Your task to perform on an android device: open app "Adobe Express: Graphic Design" (install if not already installed), go to login, and select forgot password Image 0: 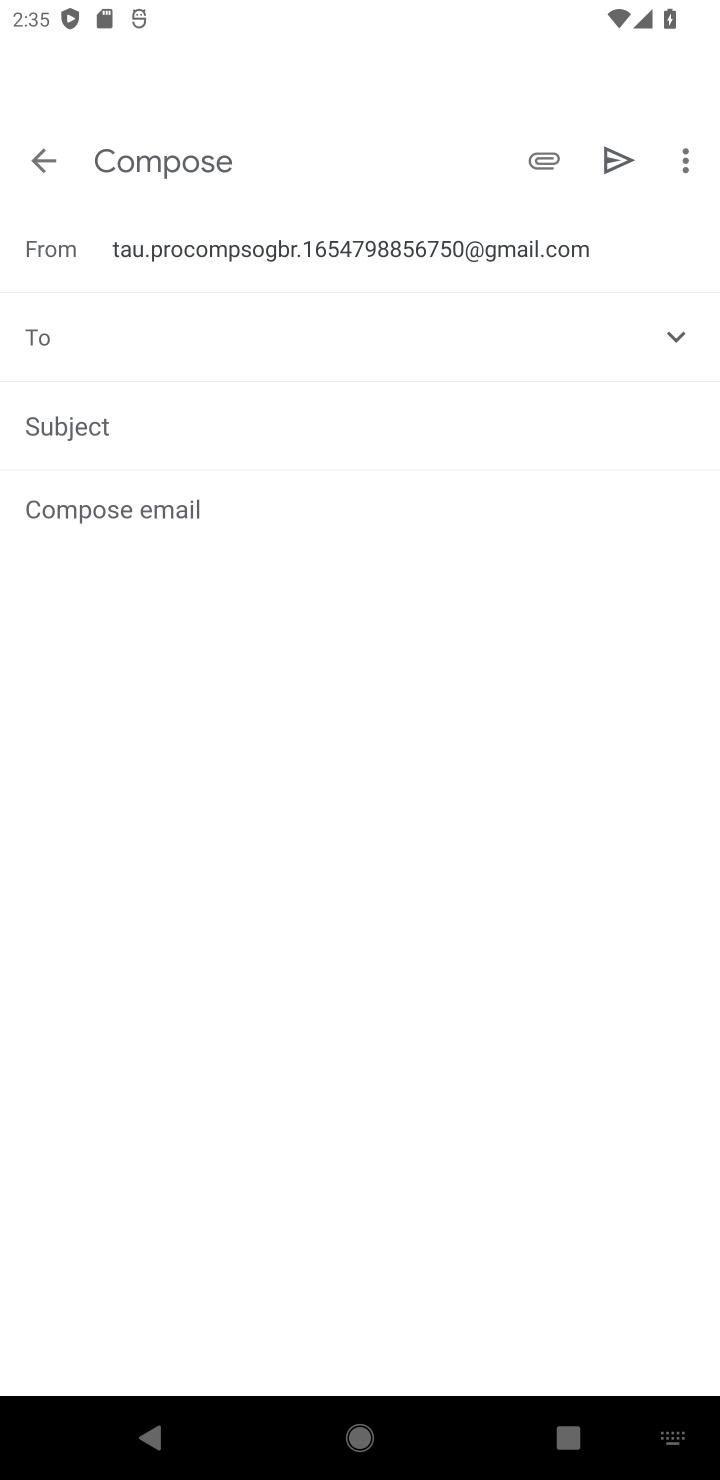
Step 0: press home button
Your task to perform on an android device: open app "Adobe Express: Graphic Design" (install if not already installed), go to login, and select forgot password Image 1: 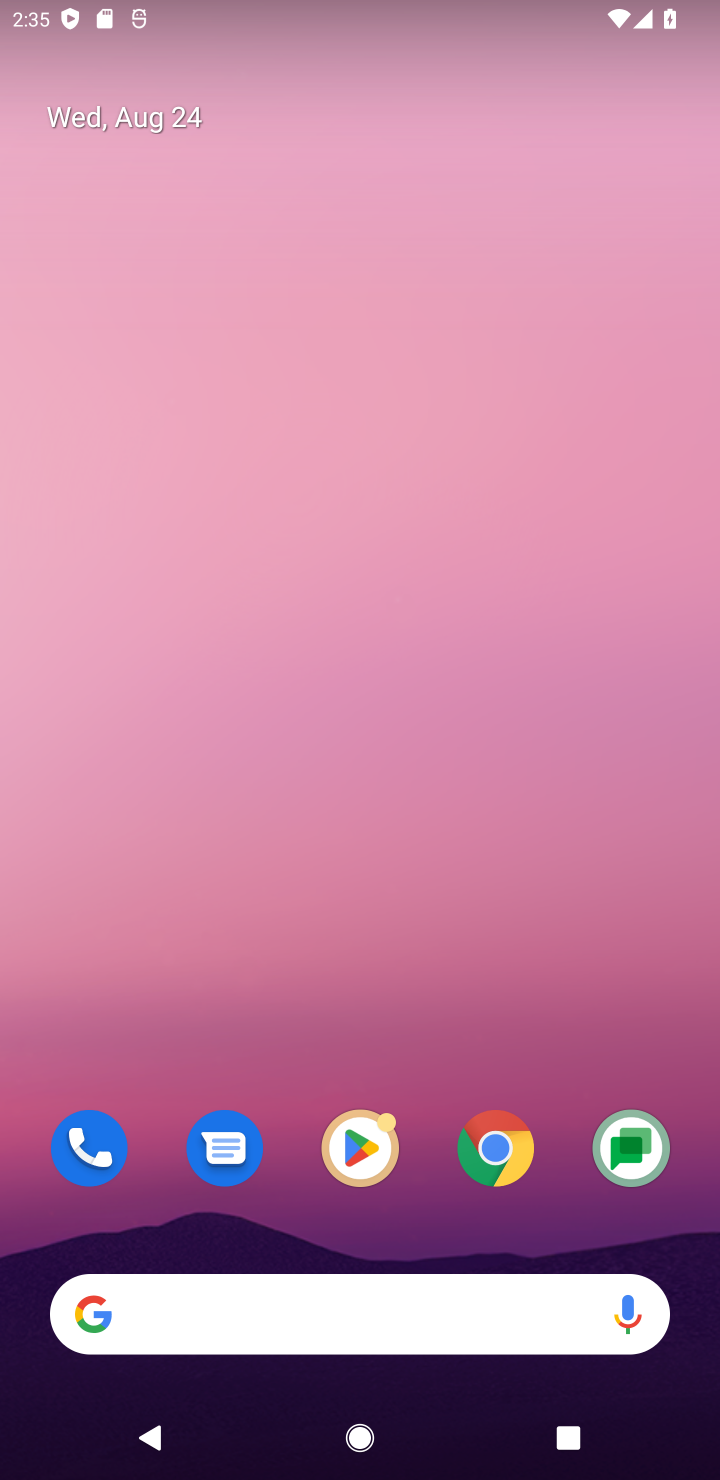
Step 1: drag from (293, 1249) to (353, 283)
Your task to perform on an android device: open app "Adobe Express: Graphic Design" (install if not already installed), go to login, and select forgot password Image 2: 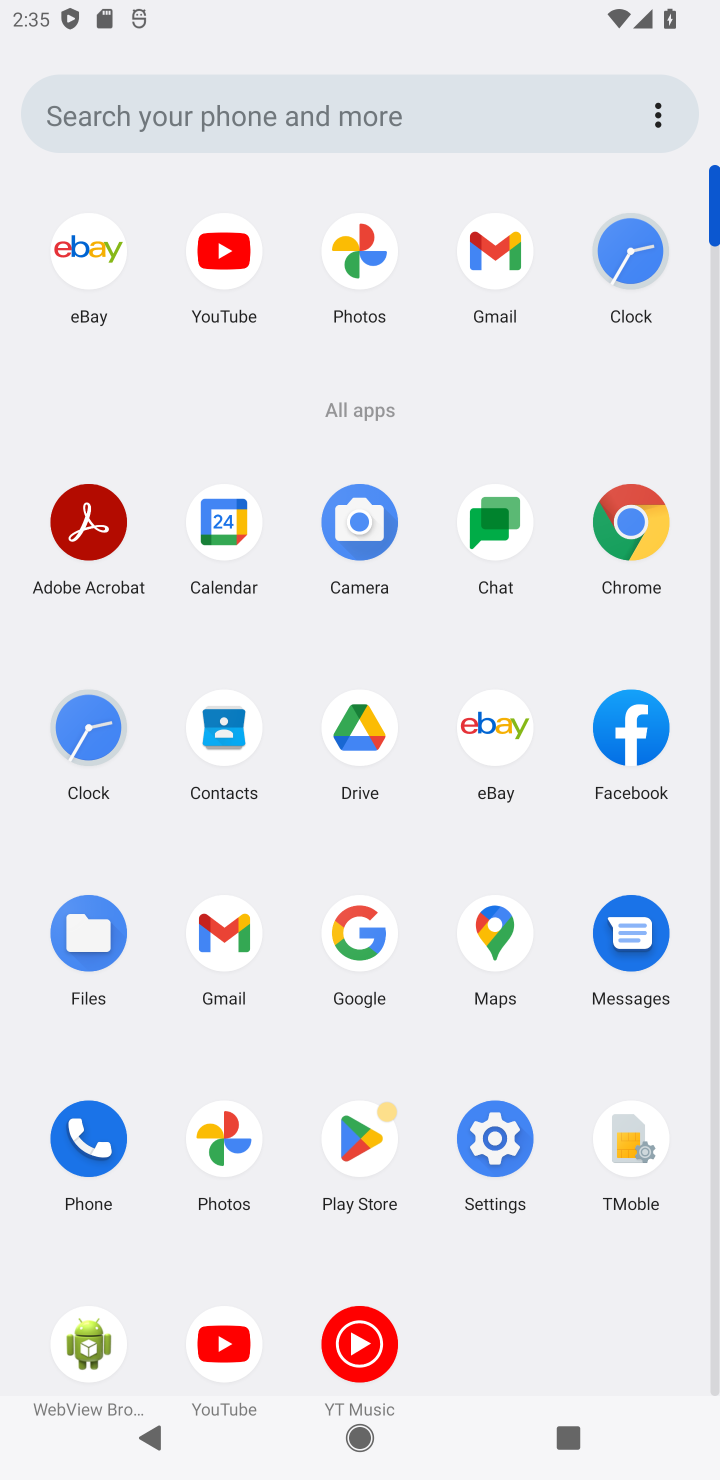
Step 2: click (364, 1141)
Your task to perform on an android device: open app "Adobe Express: Graphic Design" (install if not already installed), go to login, and select forgot password Image 3: 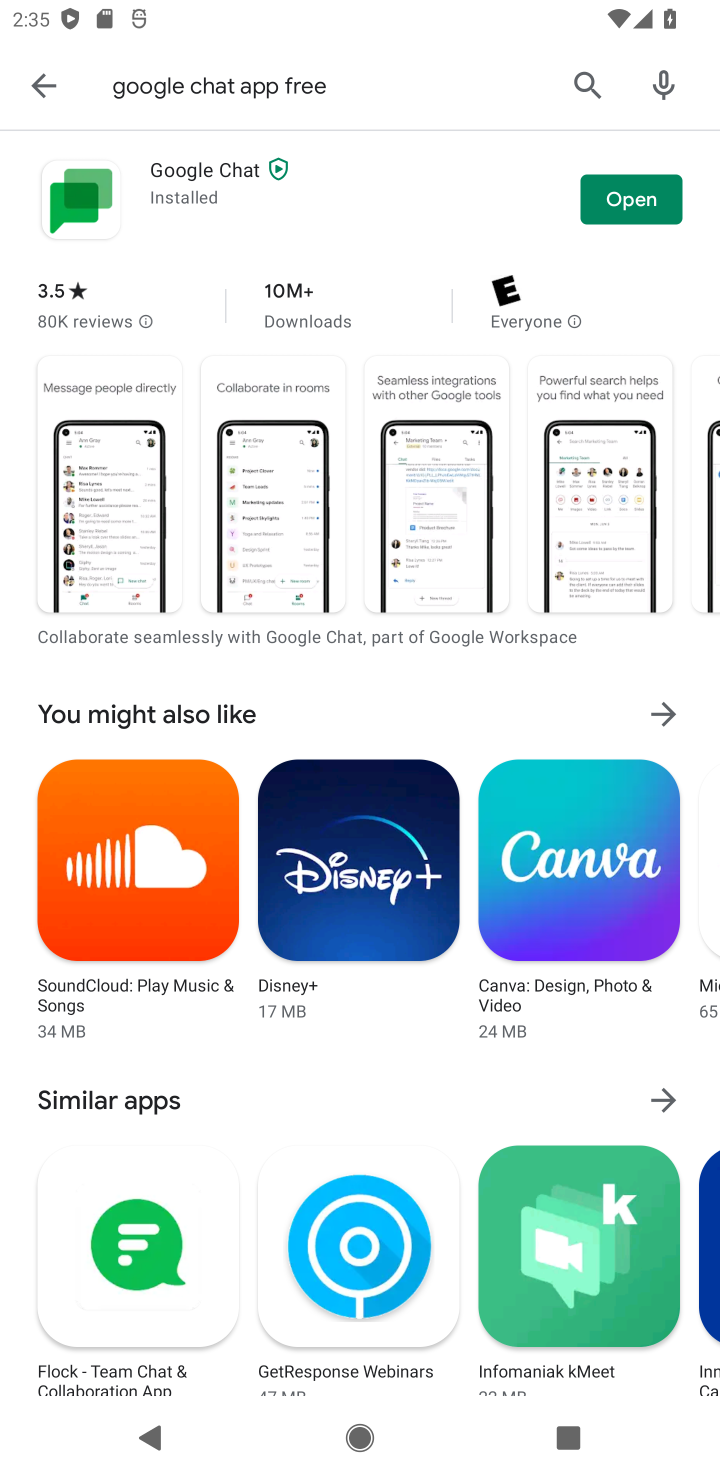
Step 3: click (352, 1118)
Your task to perform on an android device: open app "Adobe Express: Graphic Design" (install if not already installed), go to login, and select forgot password Image 4: 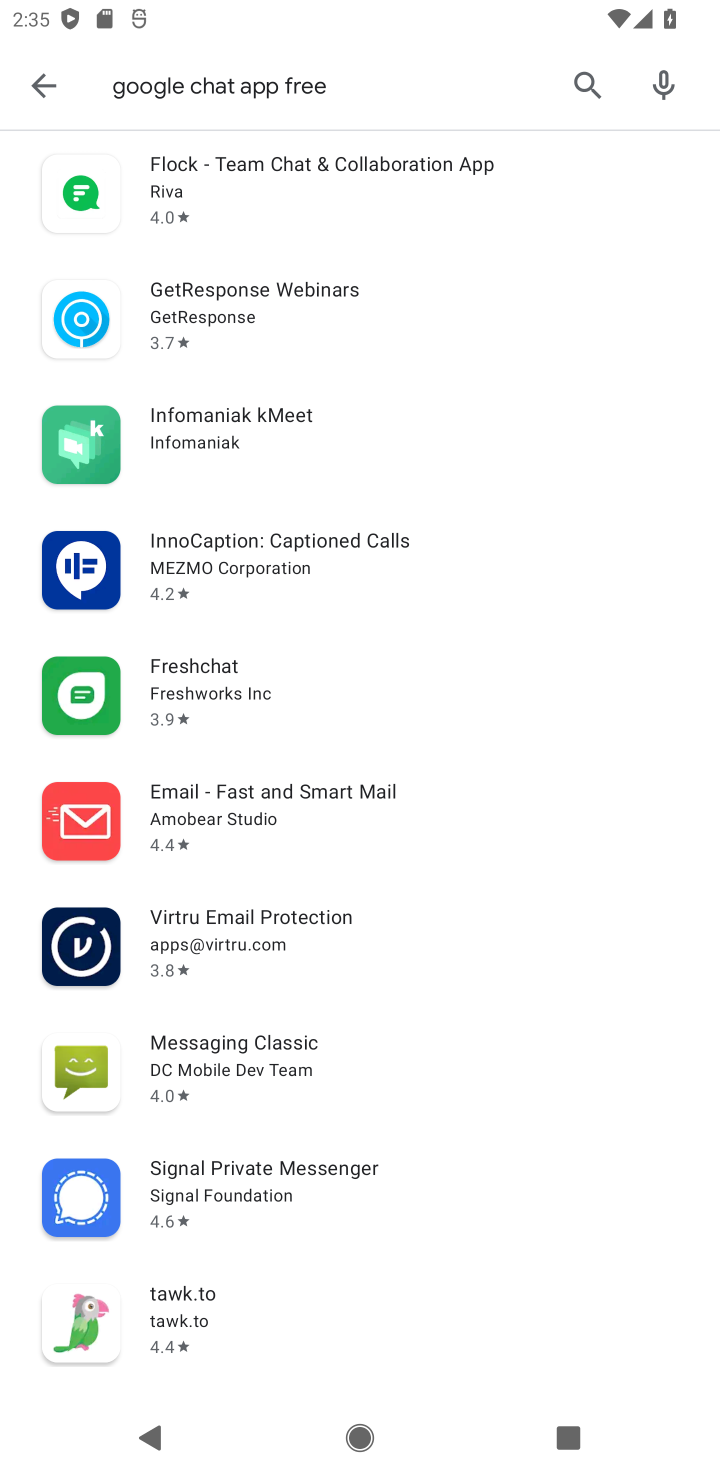
Step 4: click (64, 76)
Your task to perform on an android device: open app "Adobe Express: Graphic Design" (install if not already installed), go to login, and select forgot password Image 5: 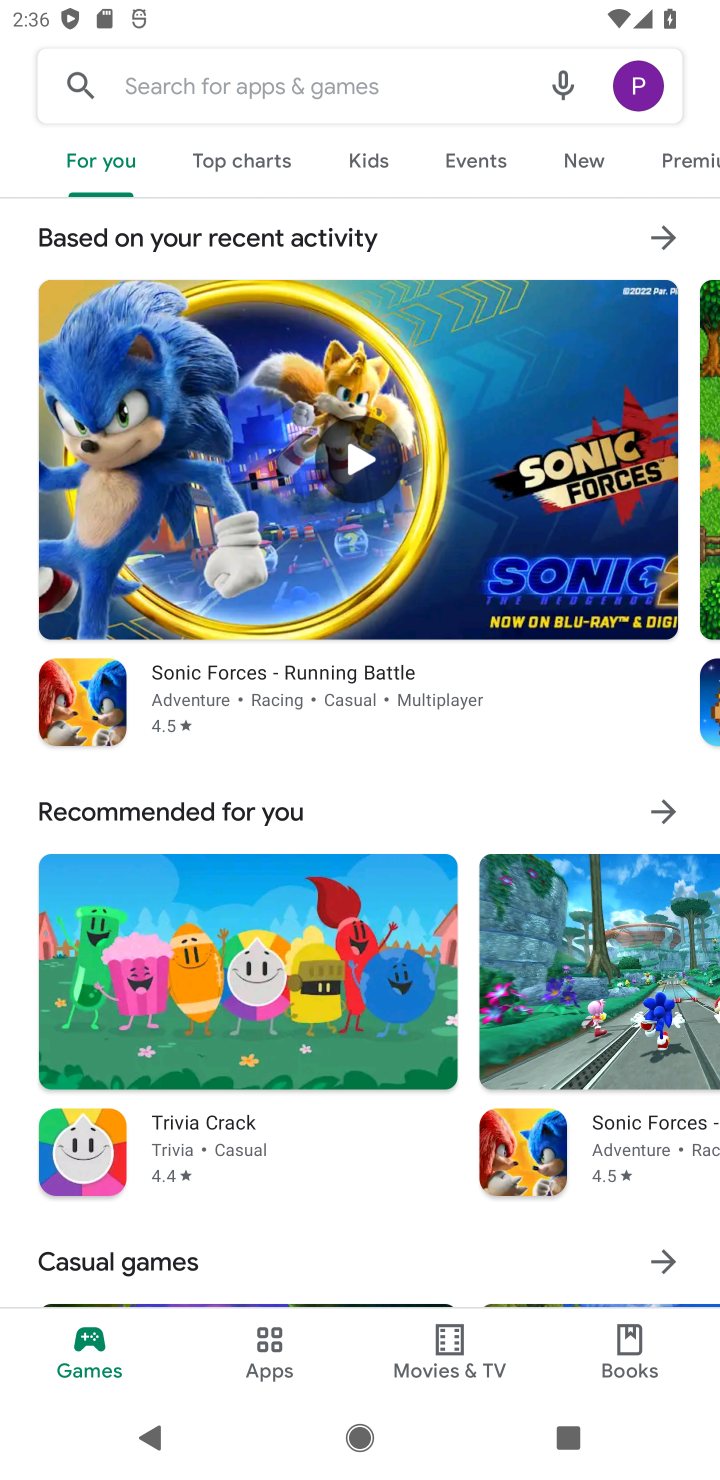
Step 5: click (384, 72)
Your task to perform on an android device: open app "Adobe Express: Graphic Design" (install if not already installed), go to login, and select forgot password Image 6: 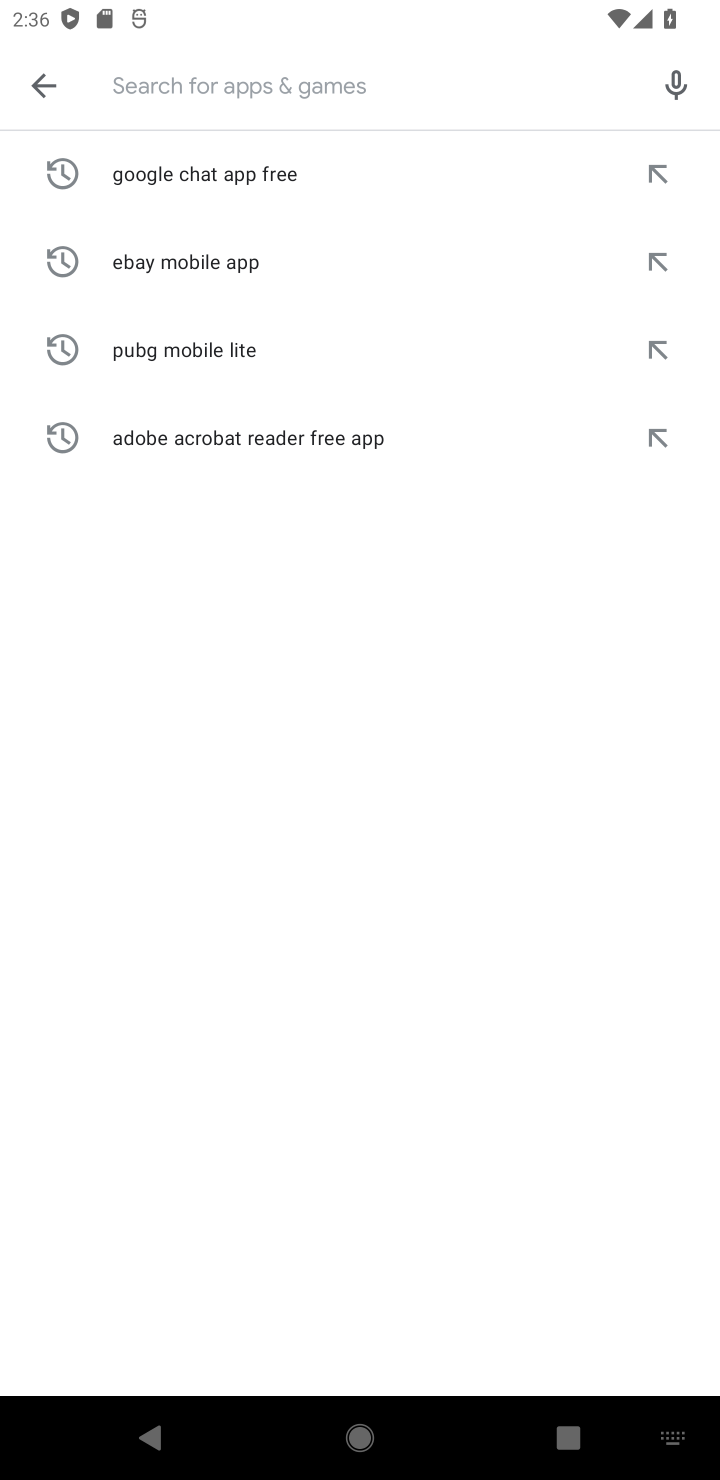
Step 6: type "Adobe Express: Graphic Design "
Your task to perform on an android device: open app "Adobe Express: Graphic Design" (install if not already installed), go to login, and select forgot password Image 7: 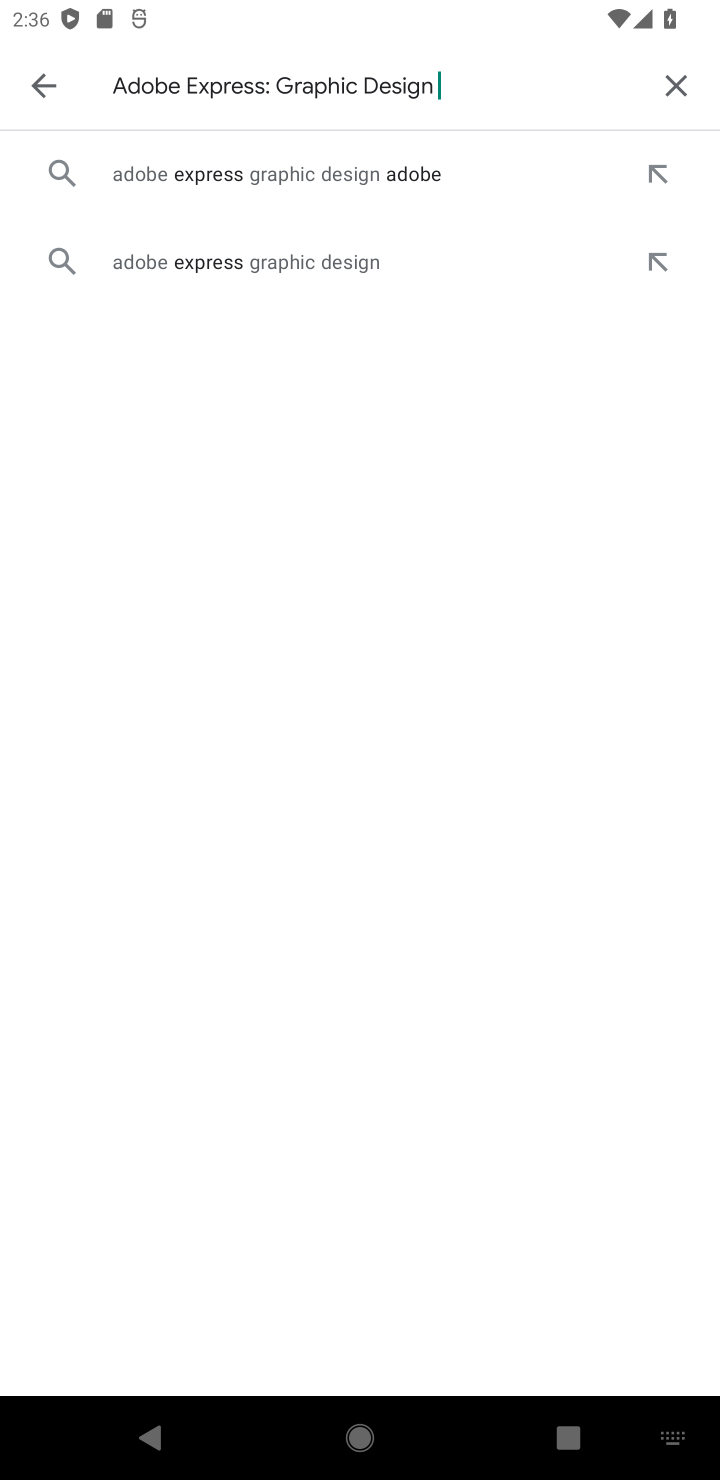
Step 7: click (242, 184)
Your task to perform on an android device: open app "Adobe Express: Graphic Design" (install if not already installed), go to login, and select forgot password Image 8: 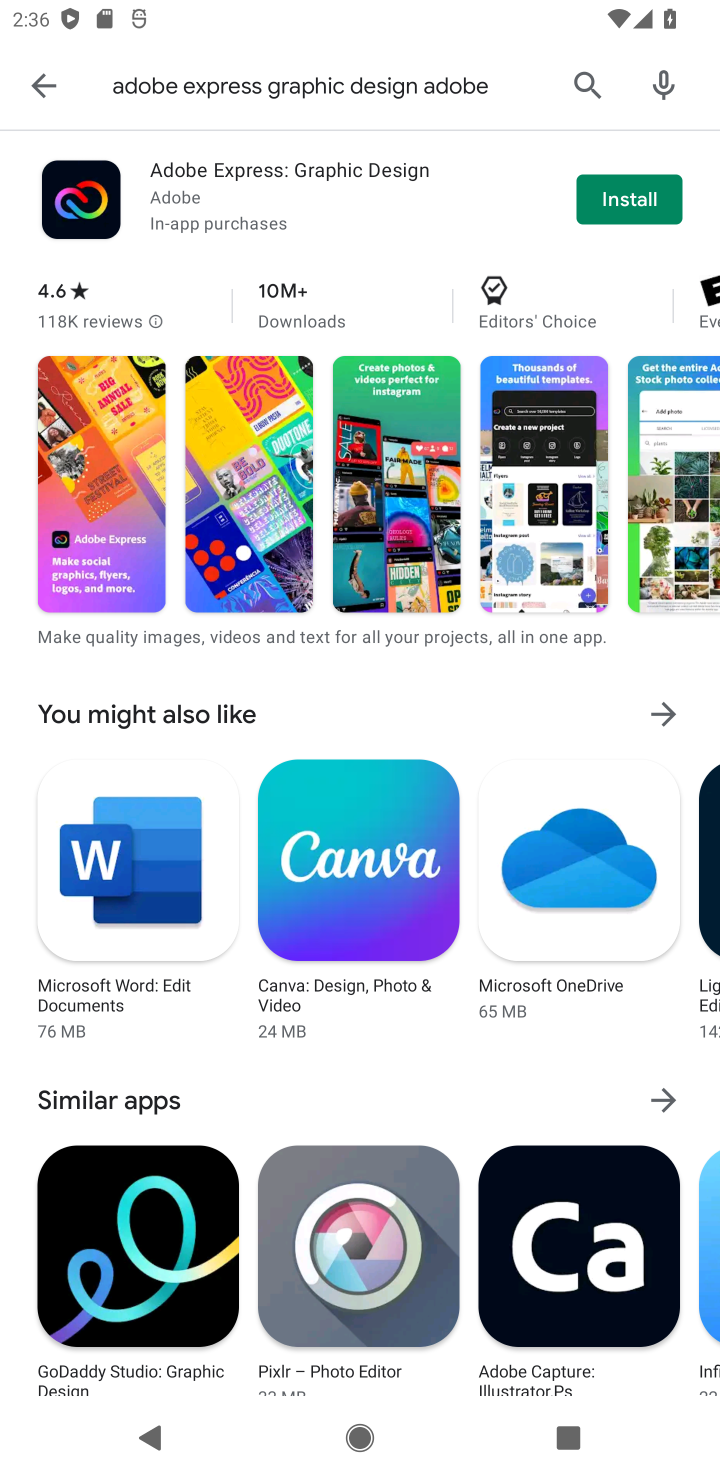
Step 8: click (659, 213)
Your task to perform on an android device: open app "Adobe Express: Graphic Design" (install if not already installed), go to login, and select forgot password Image 9: 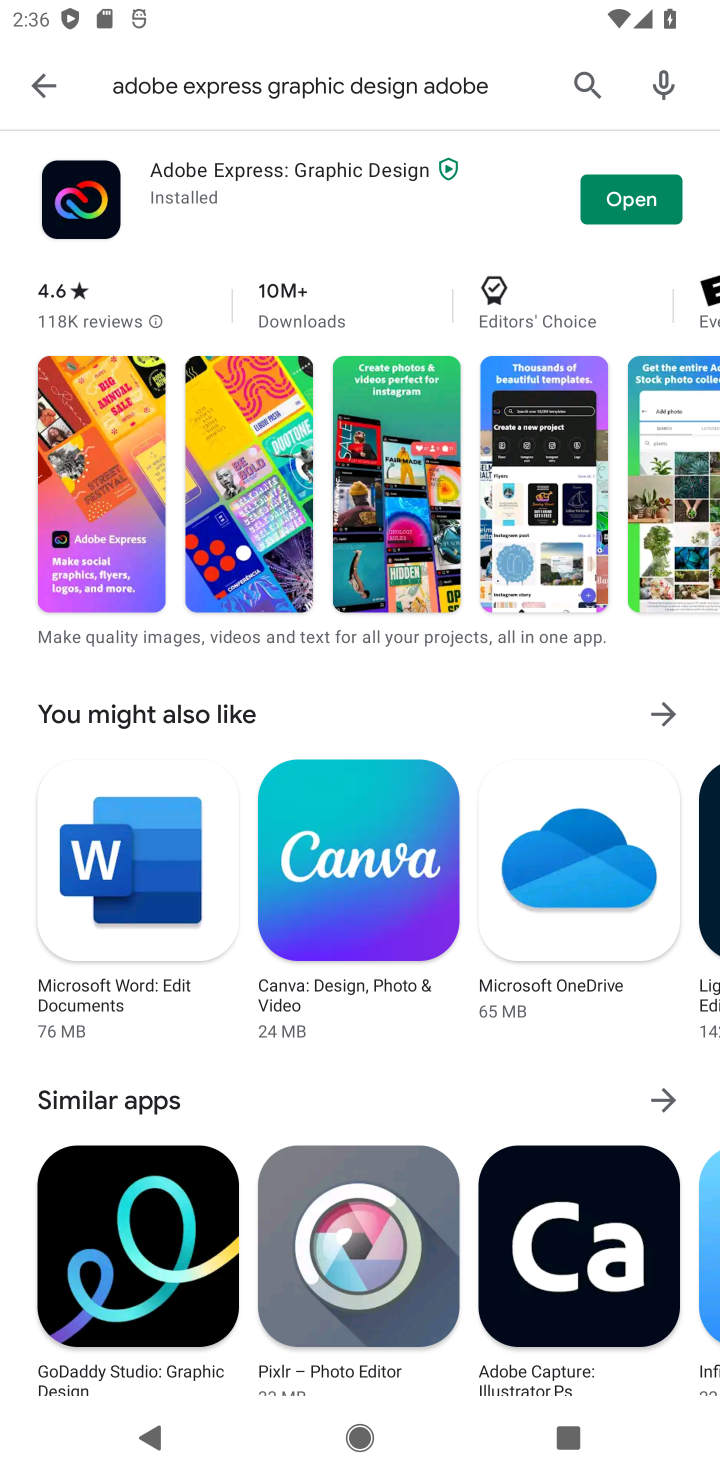
Step 9: click (659, 213)
Your task to perform on an android device: open app "Adobe Express: Graphic Design" (install if not already installed), go to login, and select forgot password Image 10: 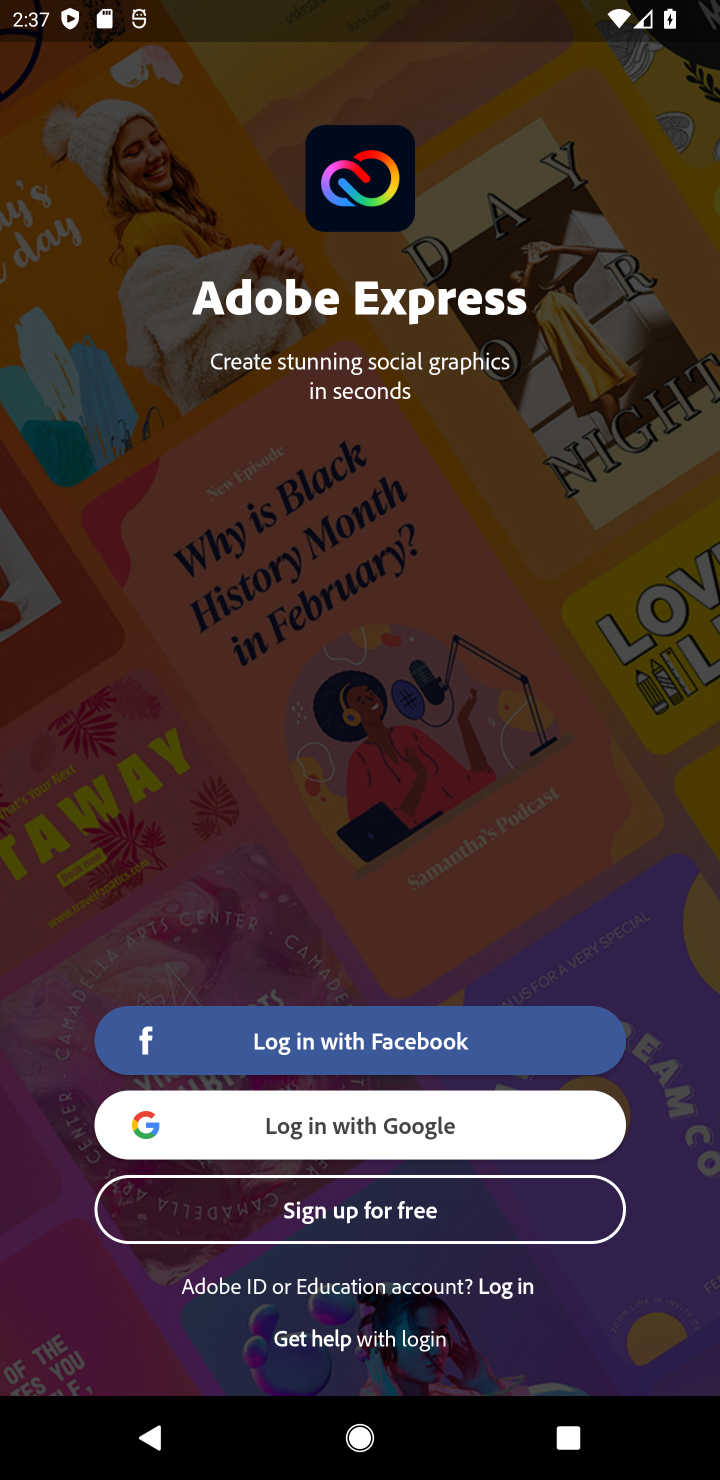
Step 10: task complete